Your task to perform on an android device: open app "Adobe Acrobat Reader" Image 0: 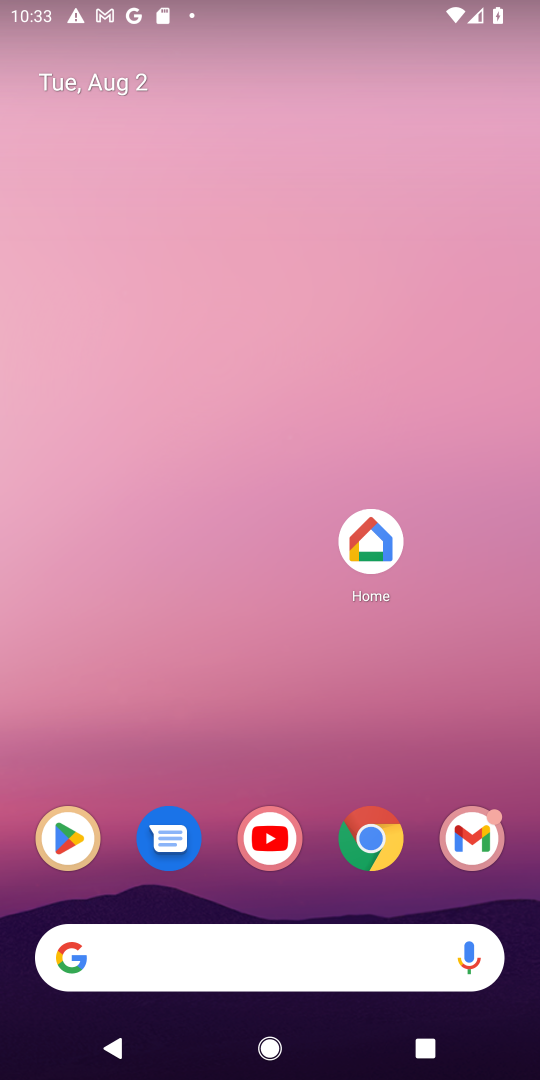
Step 0: drag from (176, 721) to (227, 154)
Your task to perform on an android device: open app "Adobe Acrobat Reader" Image 1: 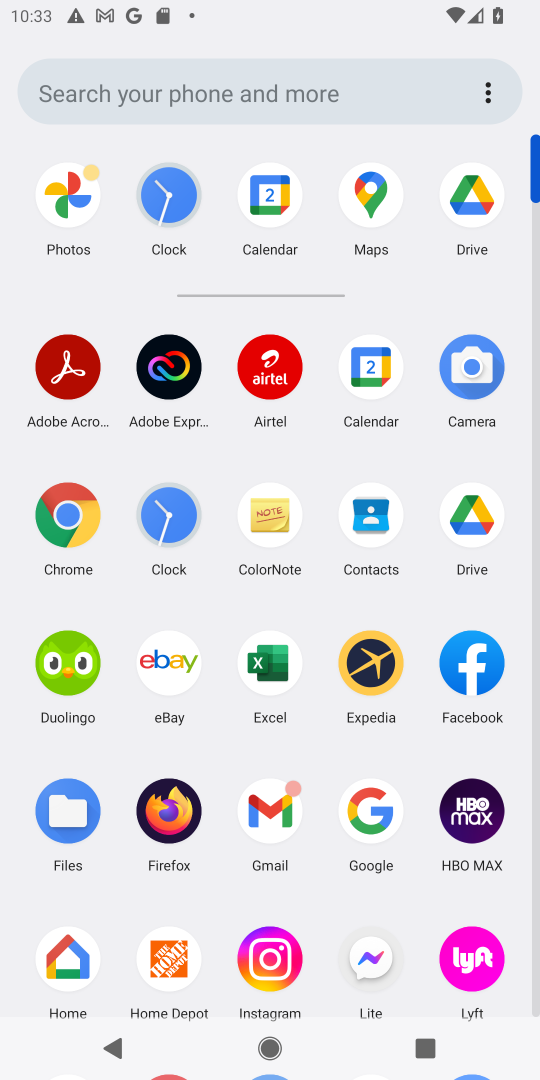
Step 1: drag from (308, 897) to (311, 561)
Your task to perform on an android device: open app "Adobe Acrobat Reader" Image 2: 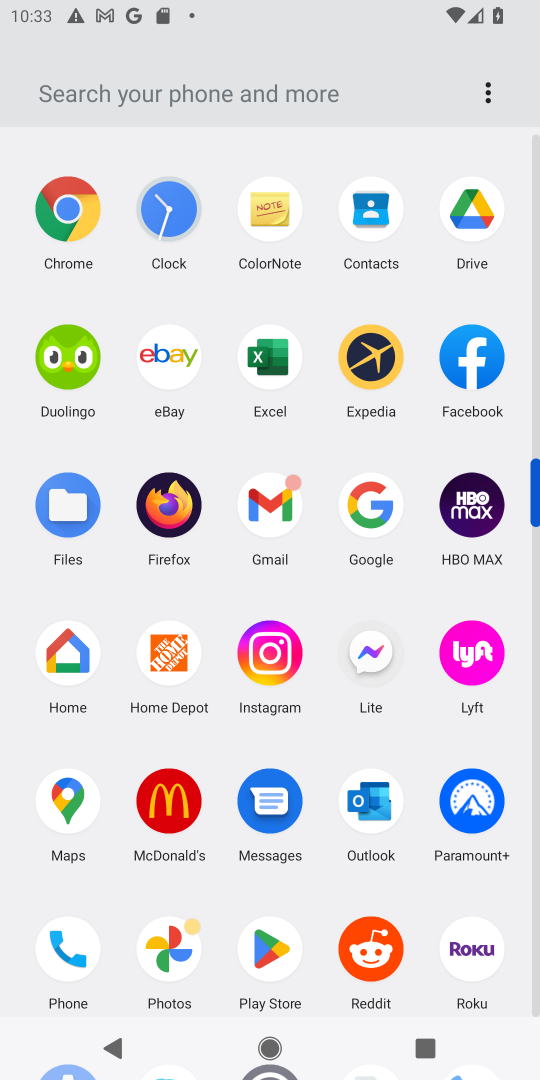
Step 2: drag from (303, 914) to (324, 693)
Your task to perform on an android device: open app "Adobe Acrobat Reader" Image 3: 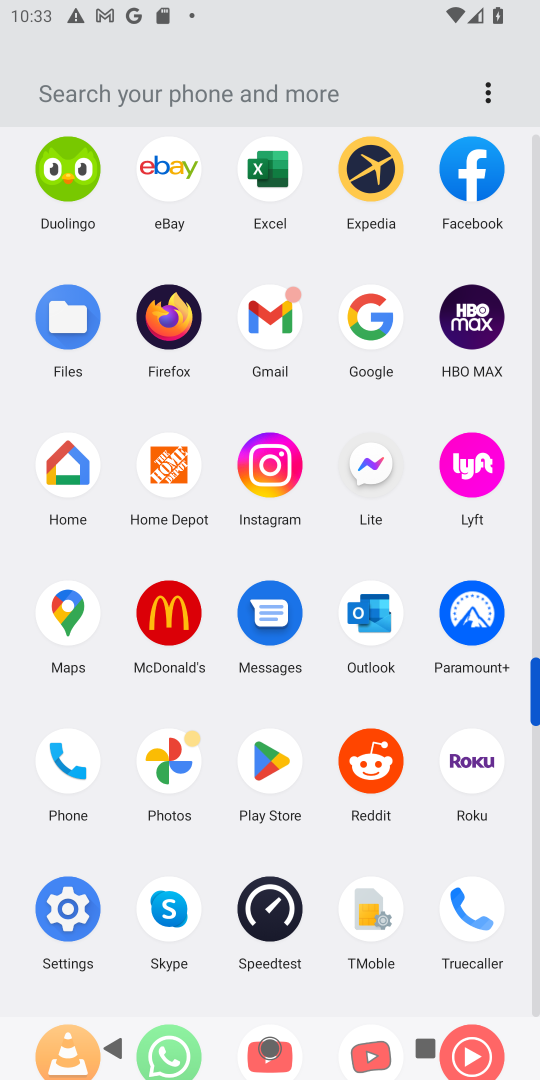
Step 3: click (258, 760)
Your task to perform on an android device: open app "Adobe Acrobat Reader" Image 4: 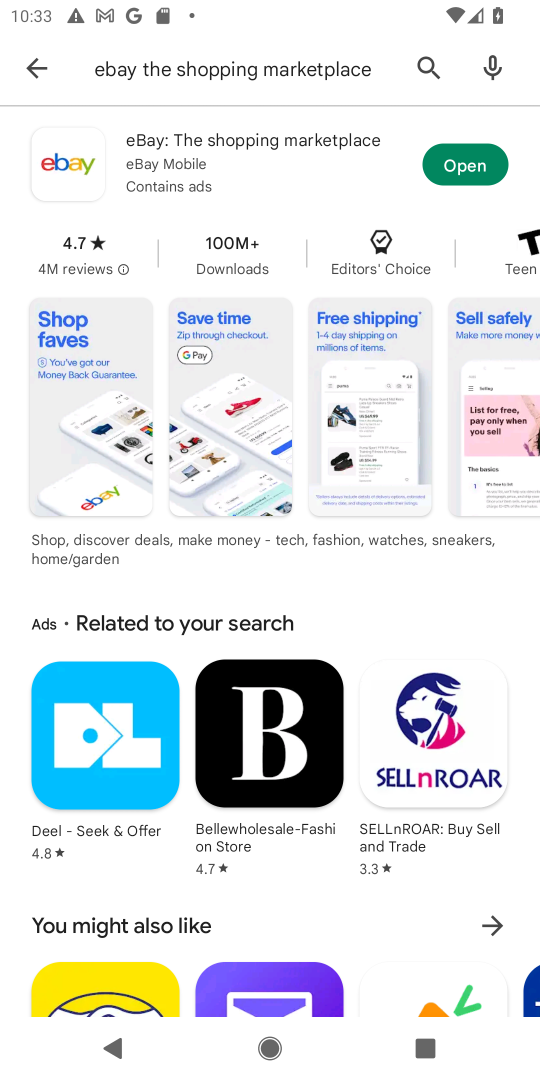
Step 4: click (420, 69)
Your task to perform on an android device: open app "Adobe Acrobat Reader" Image 5: 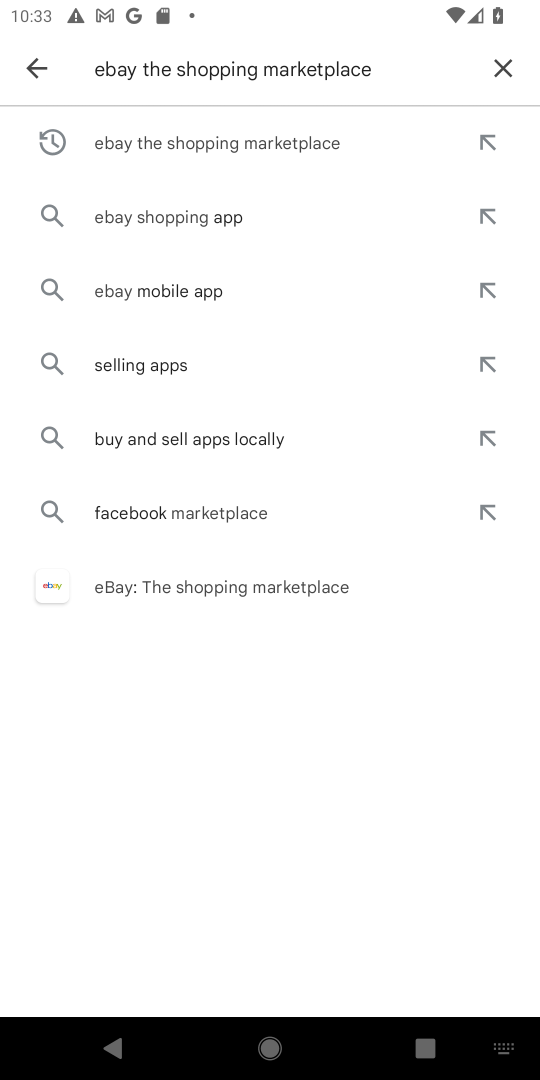
Step 5: click (498, 61)
Your task to perform on an android device: open app "Adobe Acrobat Reader" Image 6: 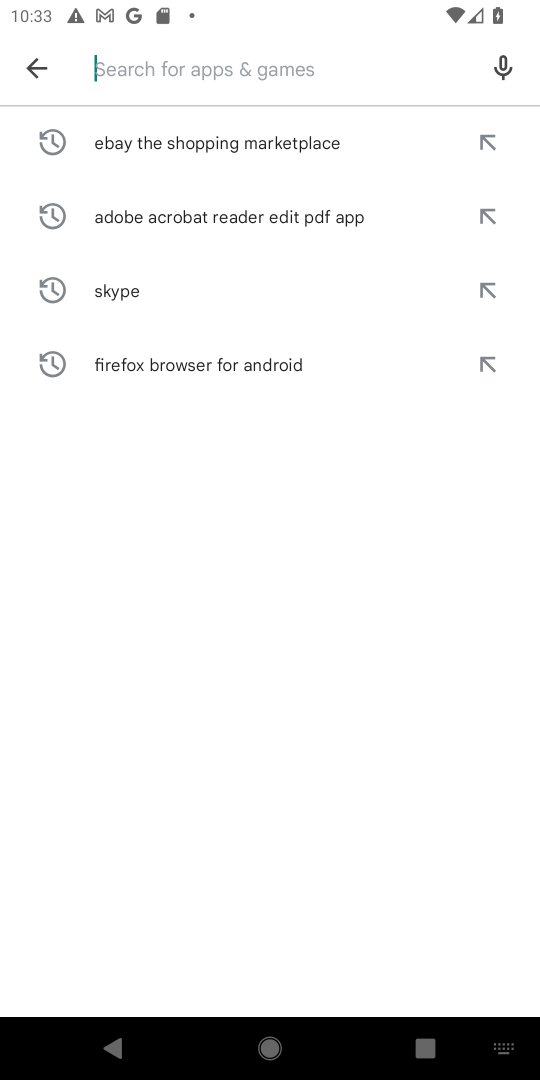
Step 6: type "adobe acrobat reader"
Your task to perform on an android device: open app "Adobe Acrobat Reader" Image 7: 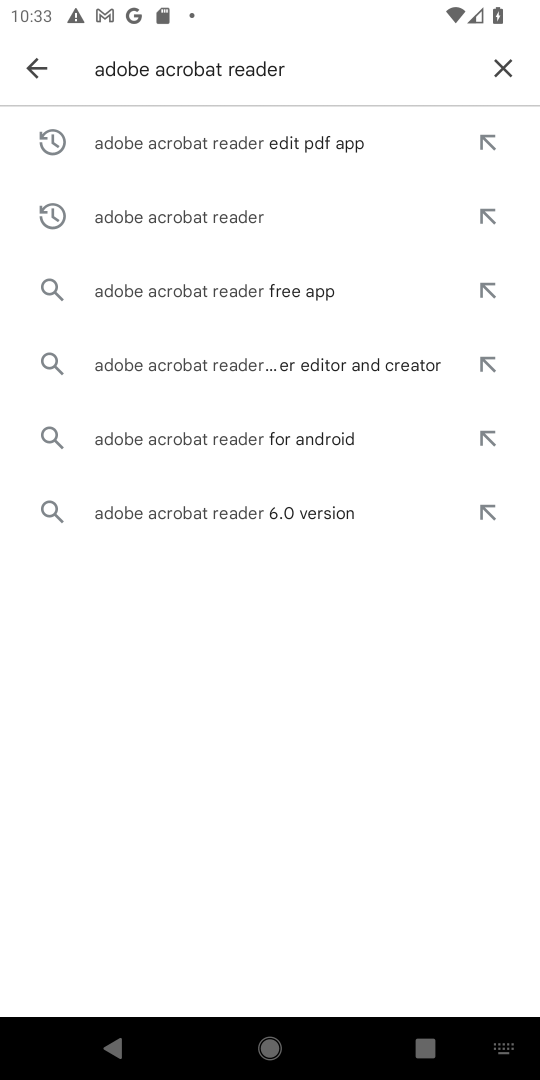
Step 7: click (244, 217)
Your task to perform on an android device: open app "Adobe Acrobat Reader" Image 8: 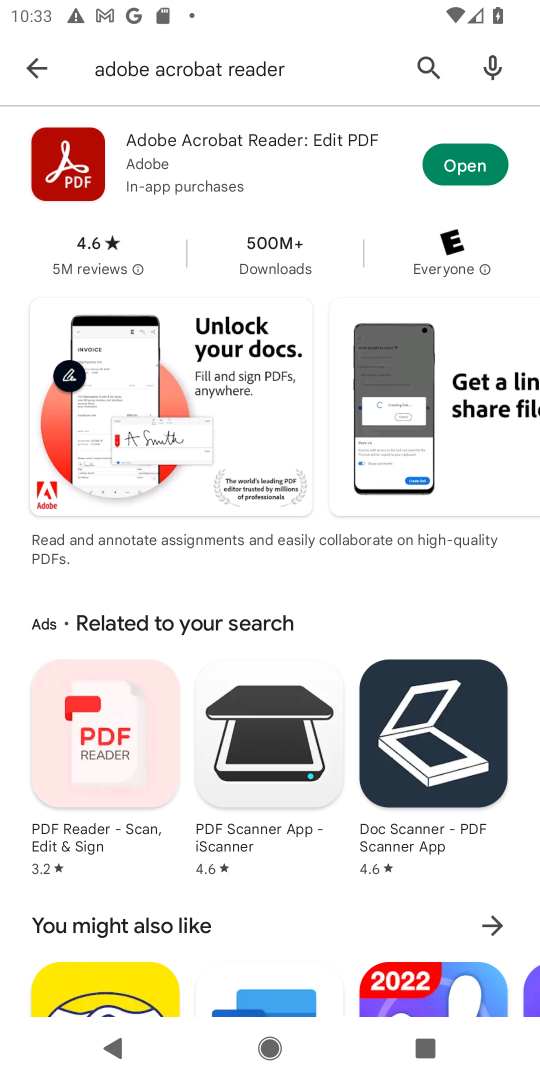
Step 8: click (479, 180)
Your task to perform on an android device: open app "Adobe Acrobat Reader" Image 9: 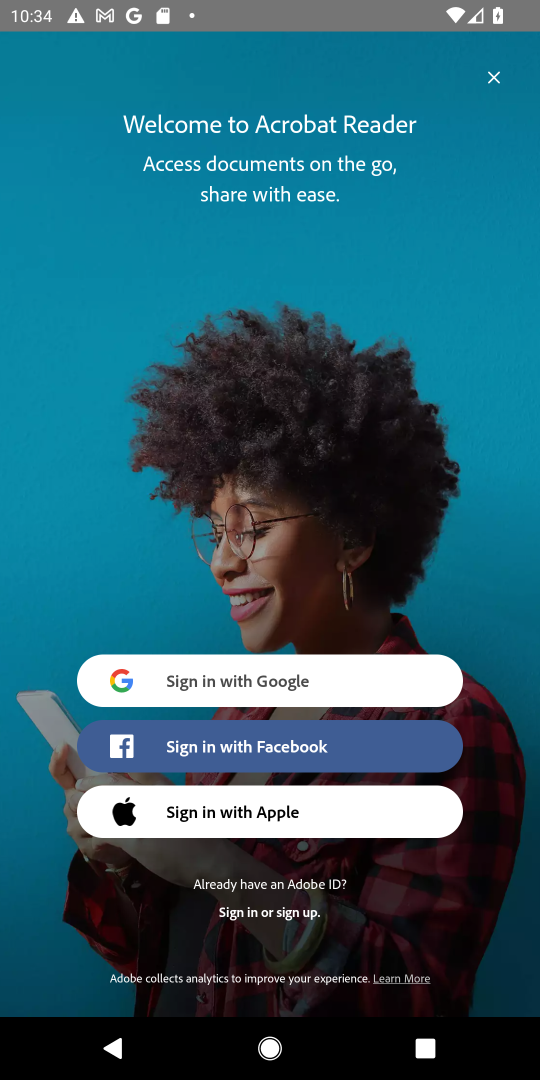
Step 9: task complete